Your task to perform on an android device: Turn off the flashlight Image 0: 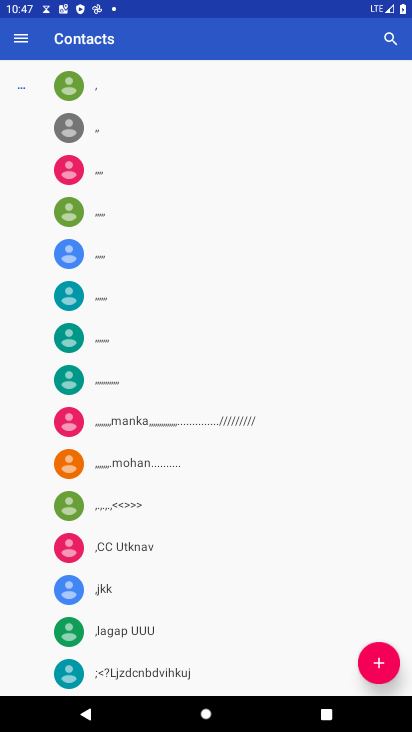
Step 0: press home button
Your task to perform on an android device: Turn off the flashlight Image 1: 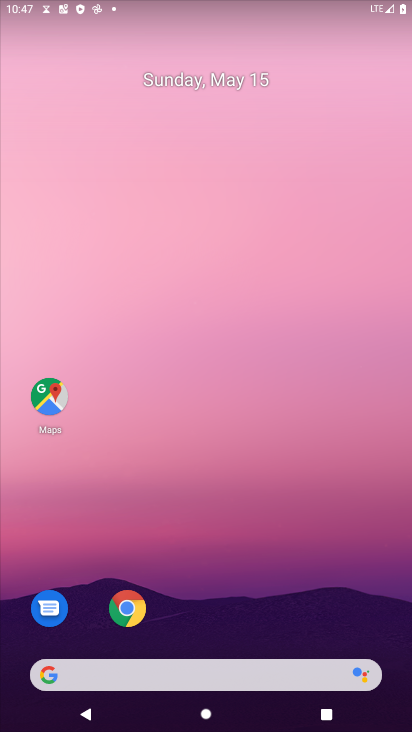
Step 1: drag from (331, 551) to (311, 17)
Your task to perform on an android device: Turn off the flashlight Image 2: 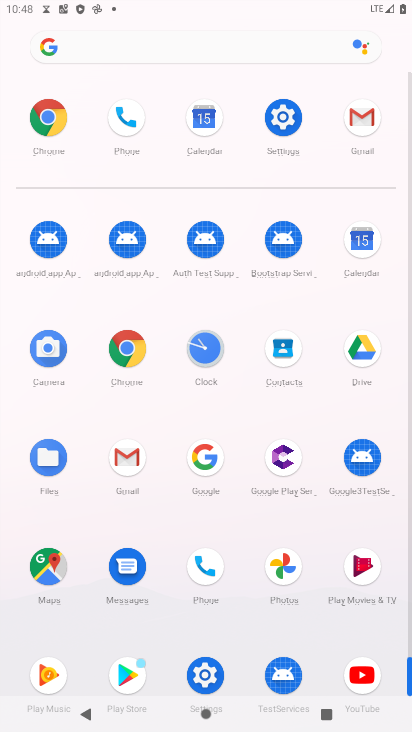
Step 2: click (286, 138)
Your task to perform on an android device: Turn off the flashlight Image 3: 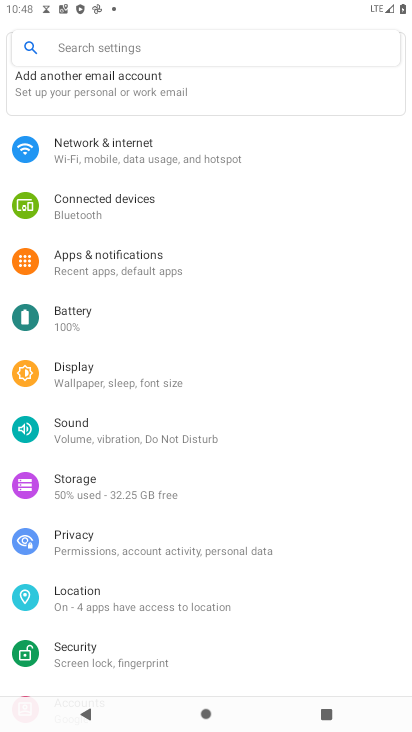
Step 3: task complete